Your task to perform on an android device: Go to Wikipedia Image 0: 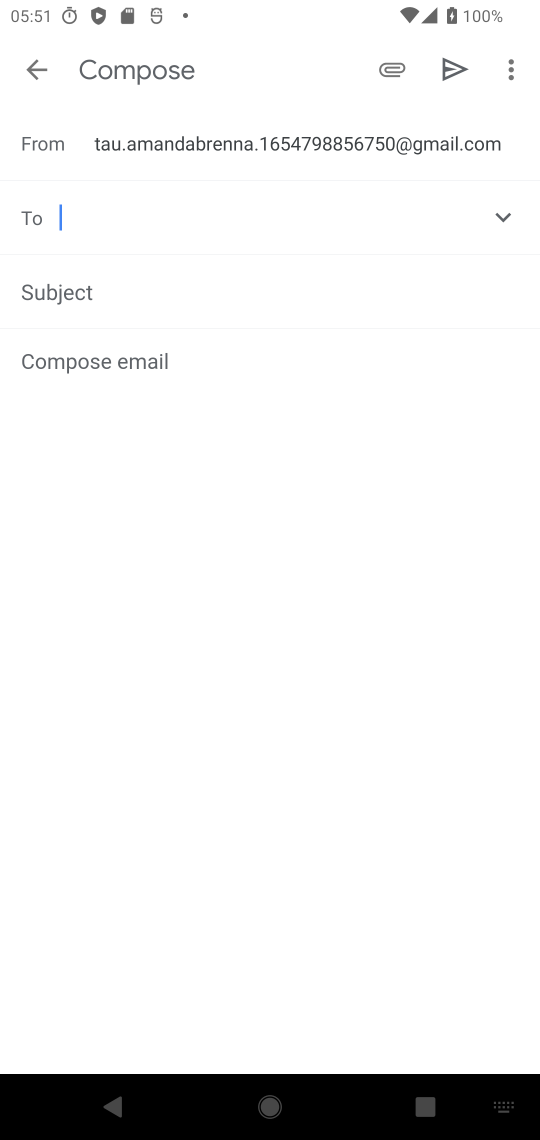
Step 0: press home button
Your task to perform on an android device: Go to Wikipedia Image 1: 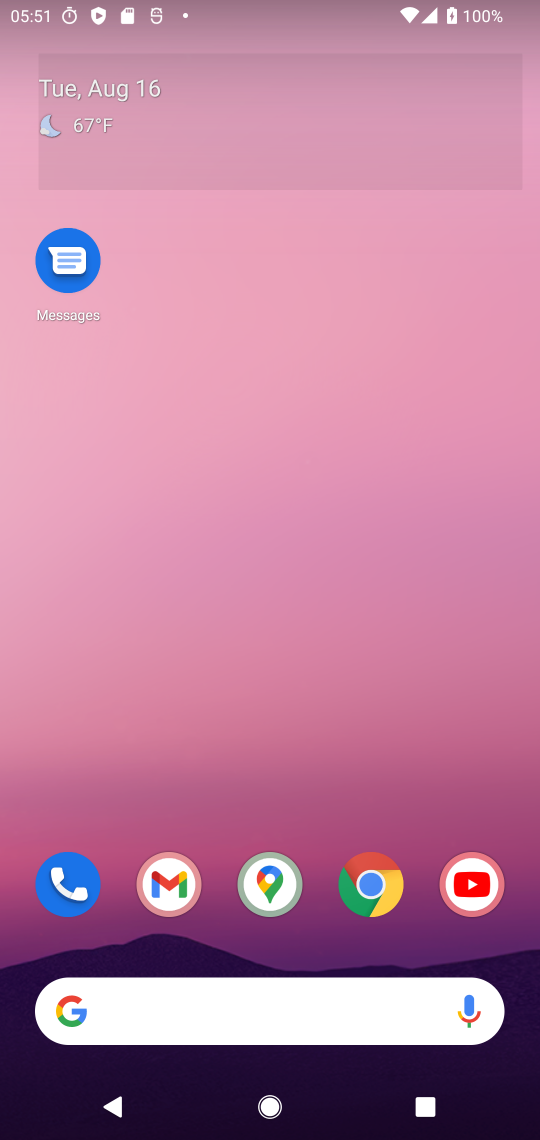
Step 1: click (151, 998)
Your task to perform on an android device: Go to Wikipedia Image 2: 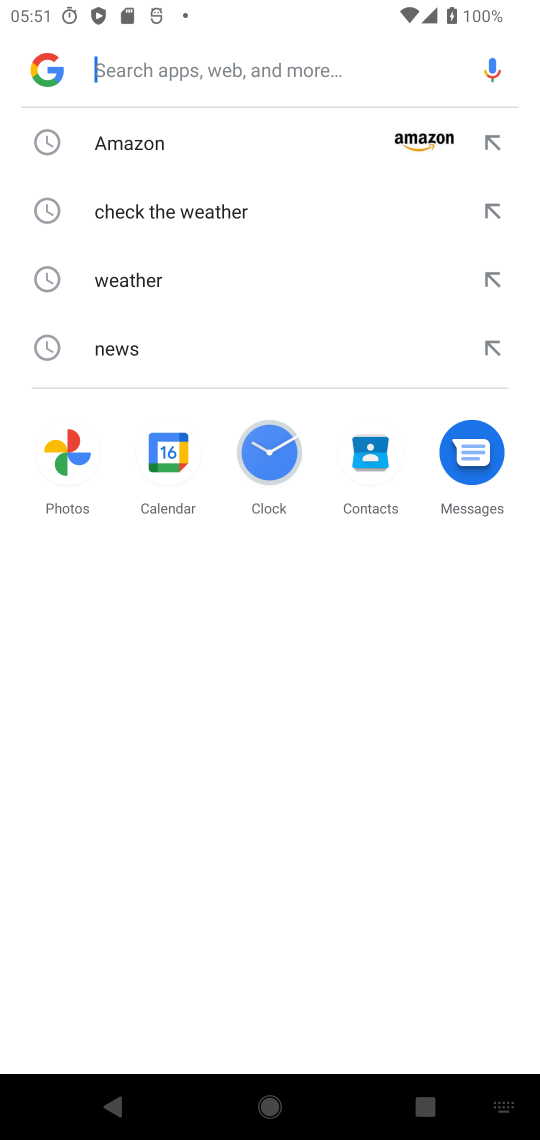
Step 2: type "Wikipedia"
Your task to perform on an android device: Go to Wikipedia Image 3: 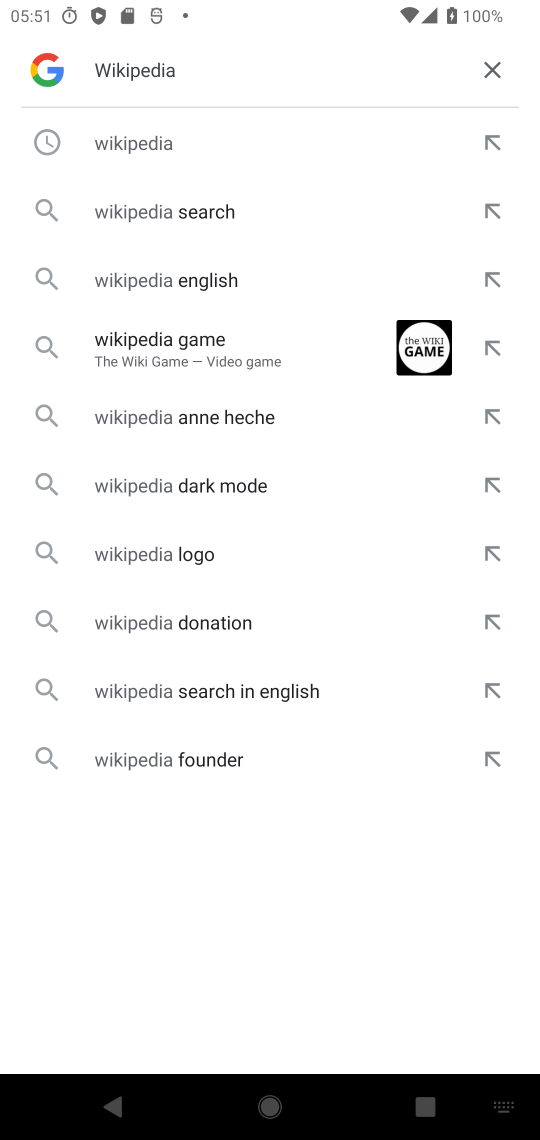
Step 3: click (161, 138)
Your task to perform on an android device: Go to Wikipedia Image 4: 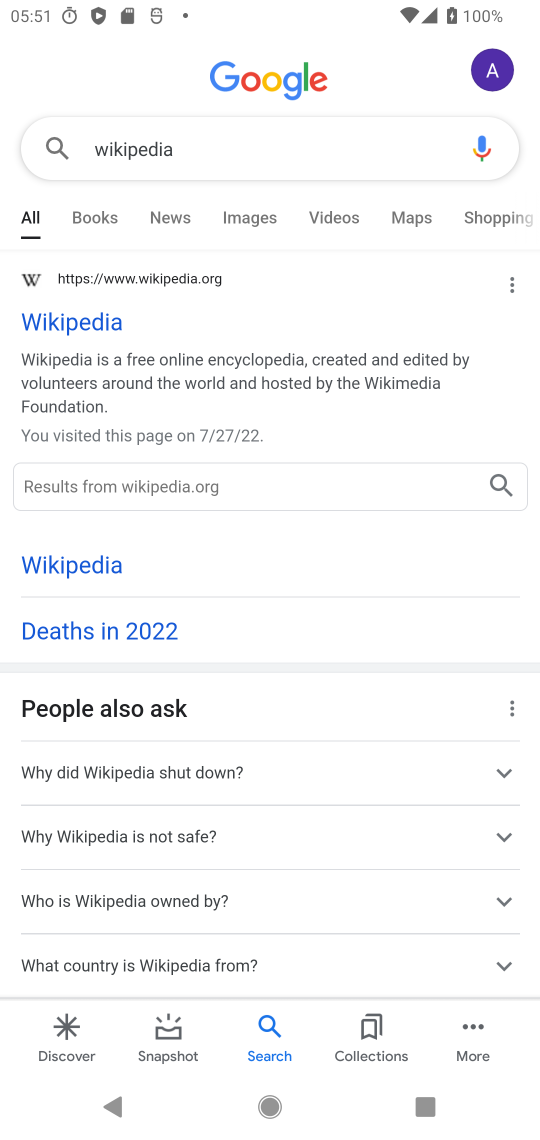
Step 4: task complete